Your task to perform on an android device: star an email in the gmail app Image 0: 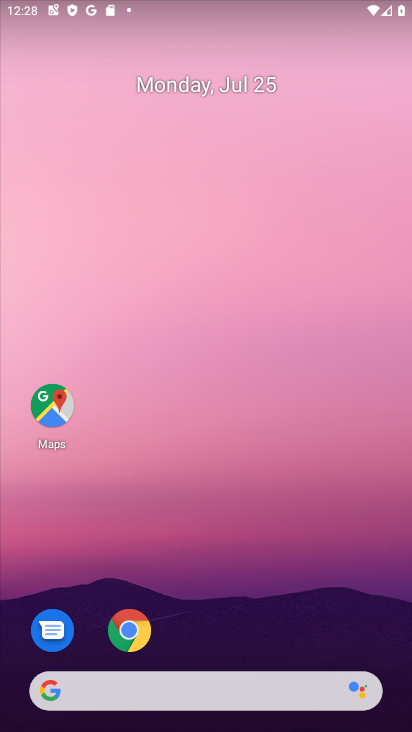
Step 0: click (229, 652)
Your task to perform on an android device: star an email in the gmail app Image 1: 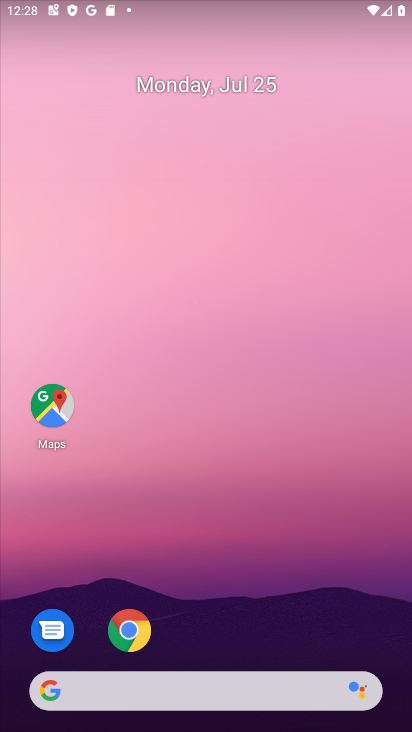
Step 1: drag from (210, 509) to (186, 251)
Your task to perform on an android device: star an email in the gmail app Image 2: 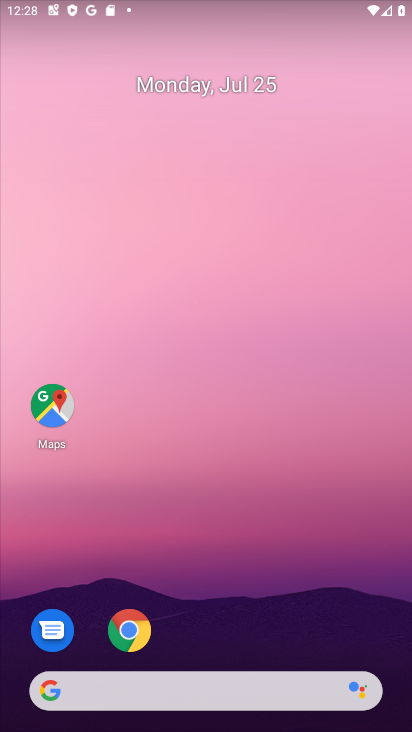
Step 2: drag from (228, 616) to (229, 28)
Your task to perform on an android device: star an email in the gmail app Image 3: 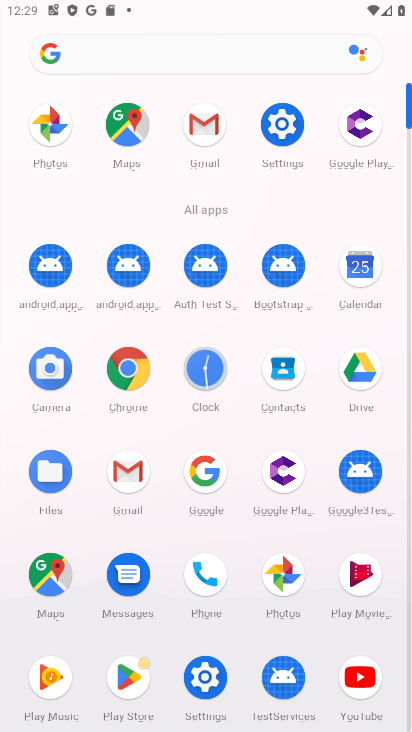
Step 3: click (195, 136)
Your task to perform on an android device: star an email in the gmail app Image 4: 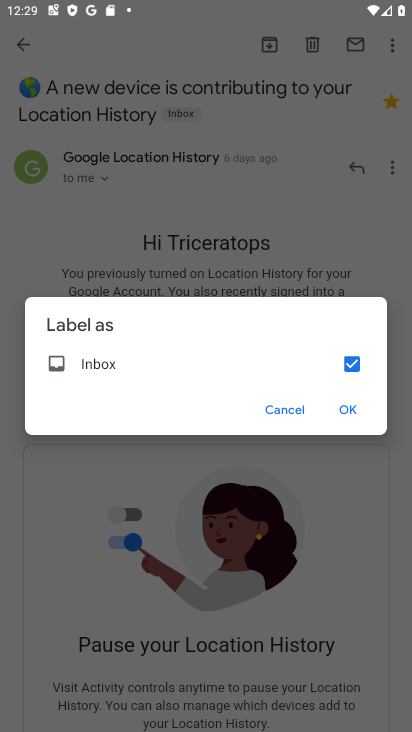
Step 4: click (284, 407)
Your task to perform on an android device: star an email in the gmail app Image 5: 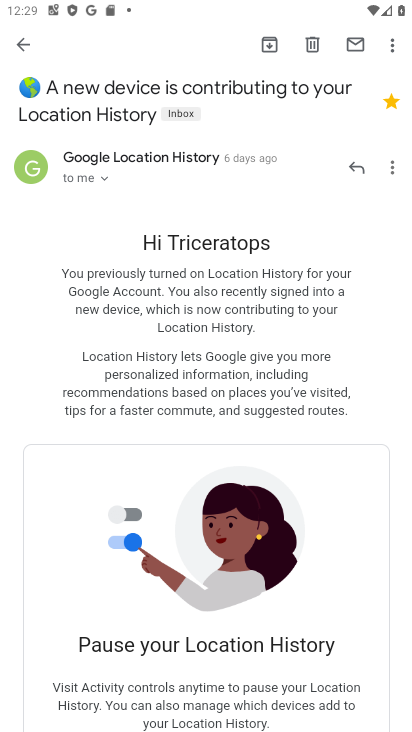
Step 5: click (19, 45)
Your task to perform on an android device: star an email in the gmail app Image 6: 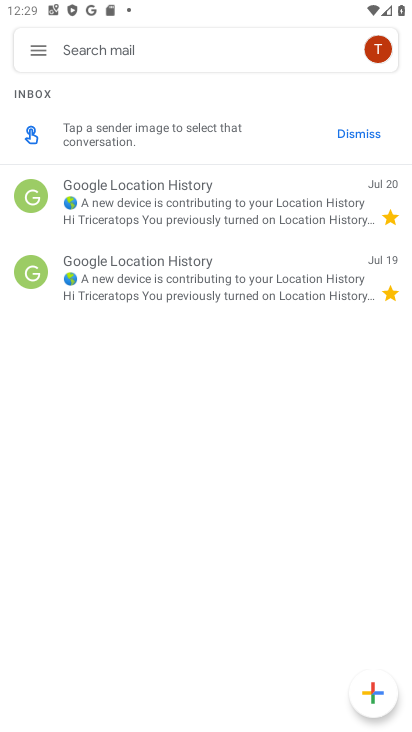
Step 6: task complete